Your task to perform on an android device: Open battery settings Image 0: 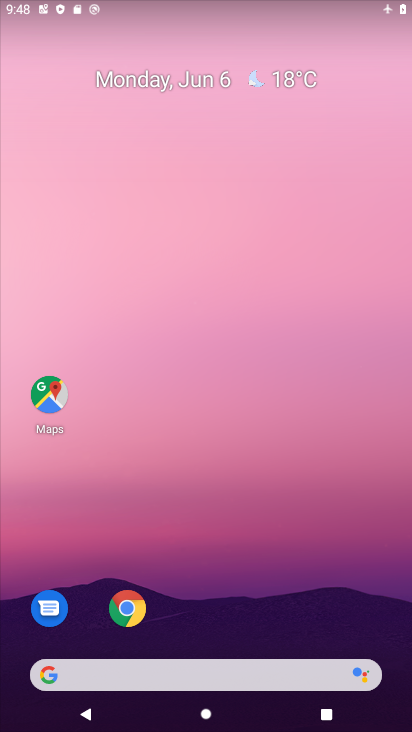
Step 0: drag from (307, 619) to (263, 93)
Your task to perform on an android device: Open battery settings Image 1: 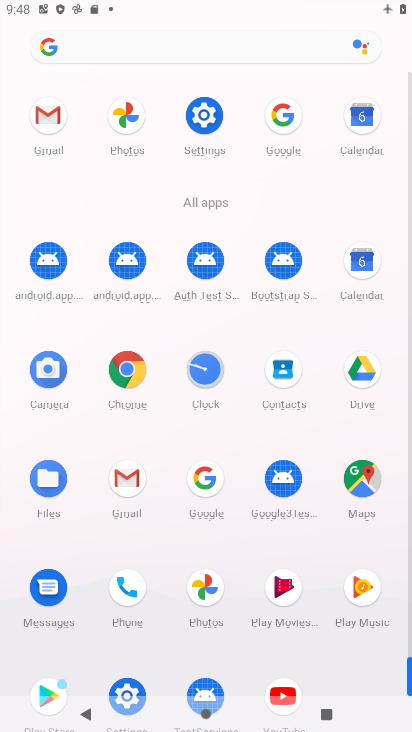
Step 1: click (204, 114)
Your task to perform on an android device: Open battery settings Image 2: 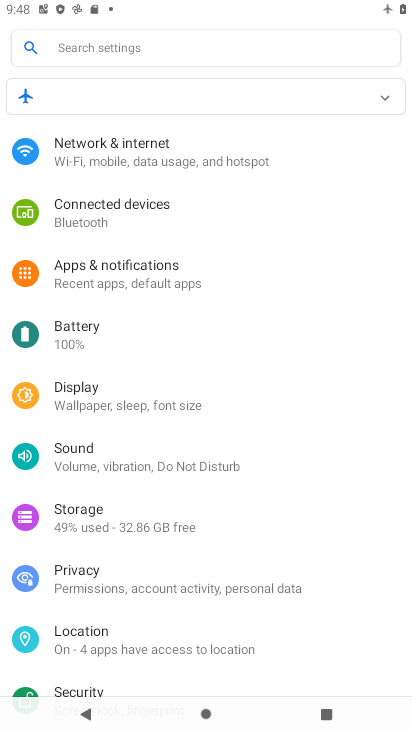
Step 2: click (79, 334)
Your task to perform on an android device: Open battery settings Image 3: 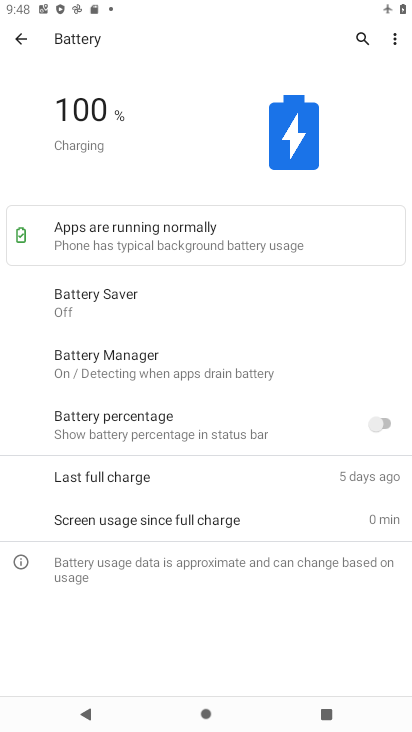
Step 3: task complete